Your task to perform on an android device: Go to display settings Image 0: 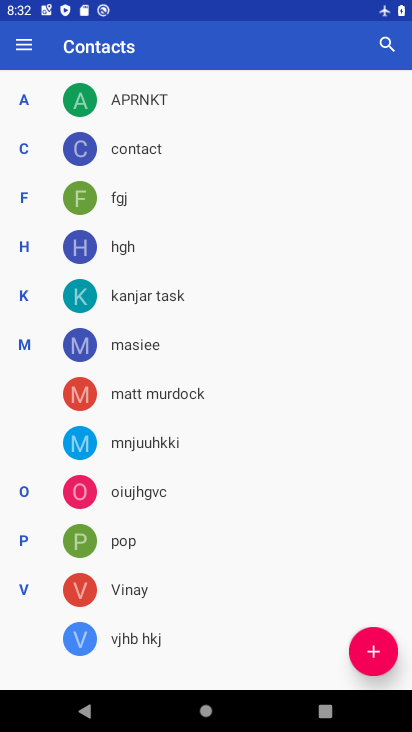
Step 0: press home button
Your task to perform on an android device: Go to display settings Image 1: 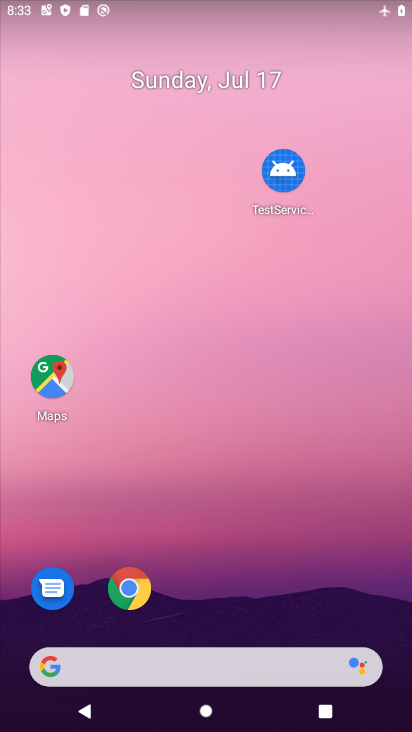
Step 1: drag from (275, 625) to (254, 63)
Your task to perform on an android device: Go to display settings Image 2: 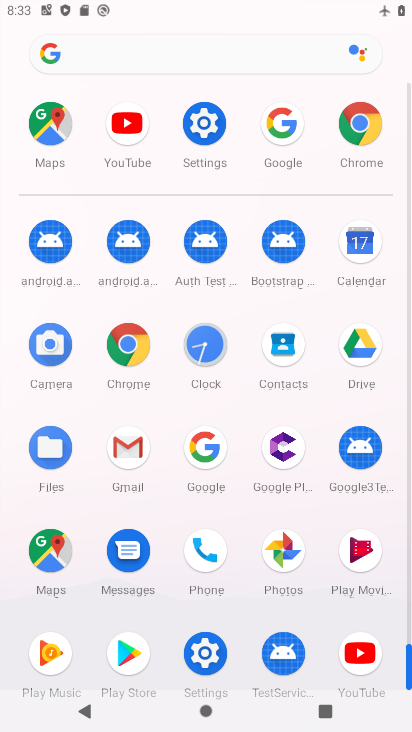
Step 2: click (204, 112)
Your task to perform on an android device: Go to display settings Image 3: 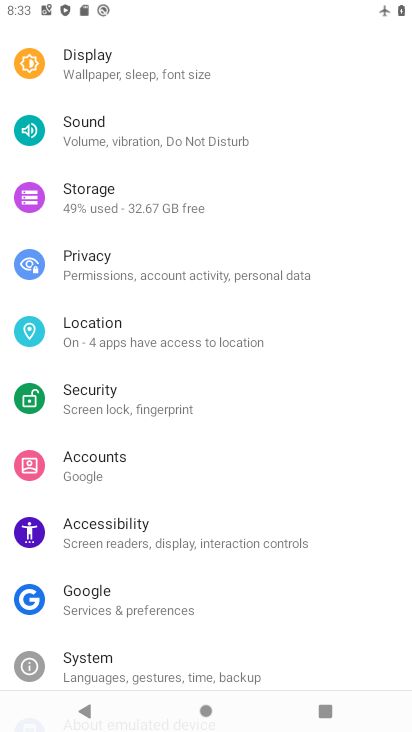
Step 3: click (202, 66)
Your task to perform on an android device: Go to display settings Image 4: 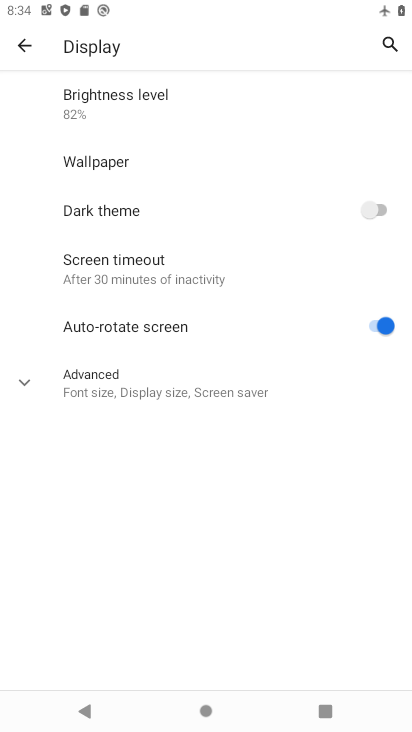
Step 4: task complete